Your task to perform on an android device: change timer sound Image 0: 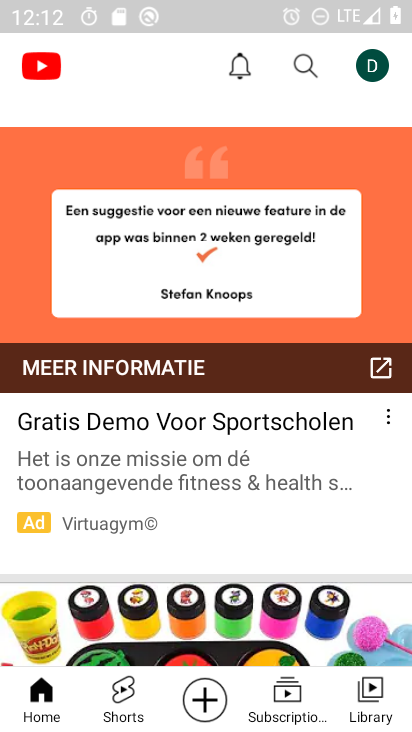
Step 0: press home button
Your task to perform on an android device: change timer sound Image 1: 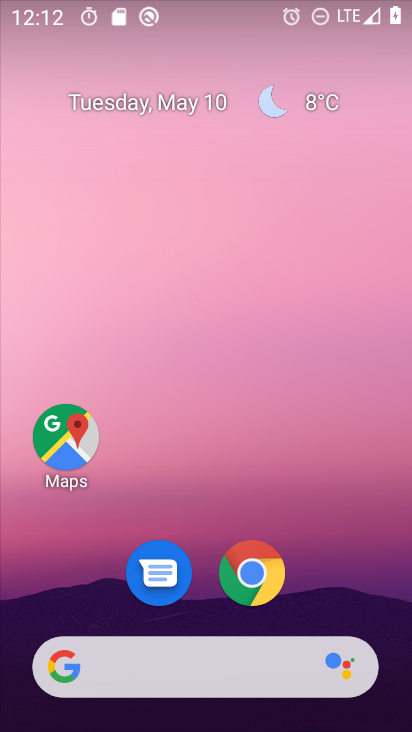
Step 1: drag from (337, 582) to (281, 151)
Your task to perform on an android device: change timer sound Image 2: 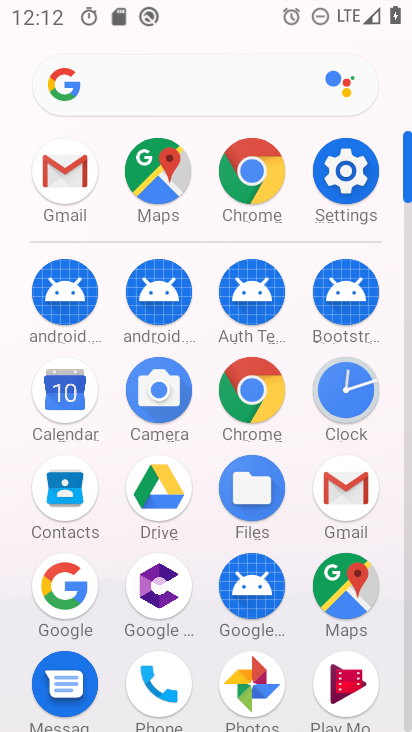
Step 2: click (357, 171)
Your task to perform on an android device: change timer sound Image 3: 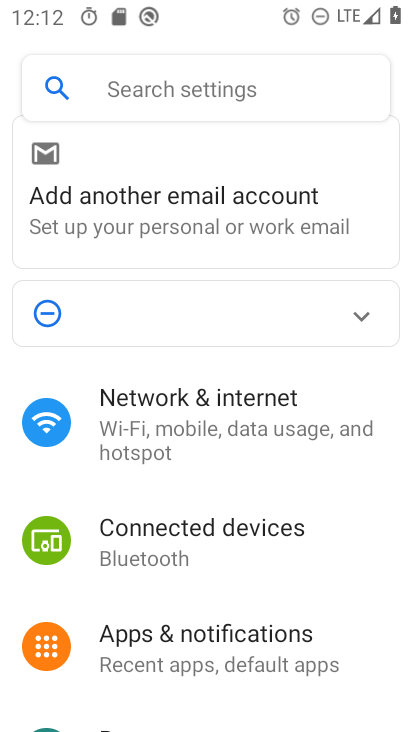
Step 3: press home button
Your task to perform on an android device: change timer sound Image 4: 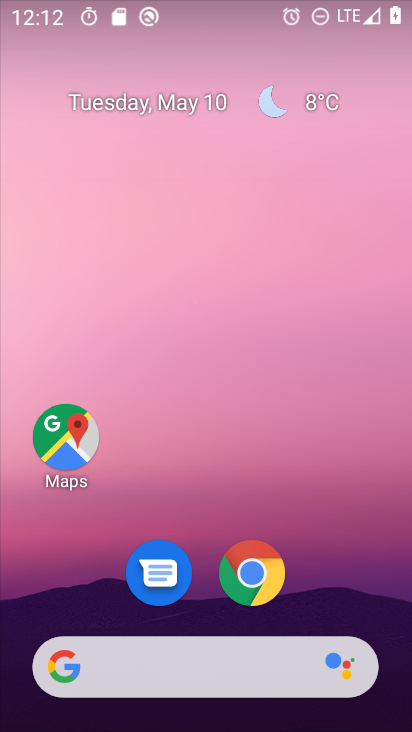
Step 4: drag from (319, 526) to (289, 130)
Your task to perform on an android device: change timer sound Image 5: 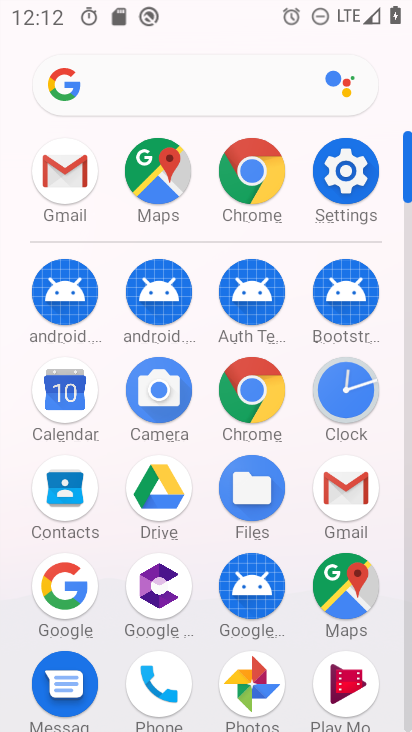
Step 5: click (332, 384)
Your task to perform on an android device: change timer sound Image 6: 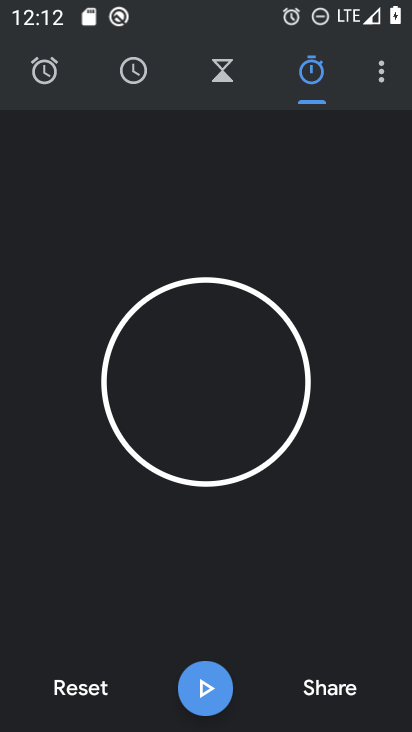
Step 6: drag from (383, 70) to (338, 184)
Your task to perform on an android device: change timer sound Image 7: 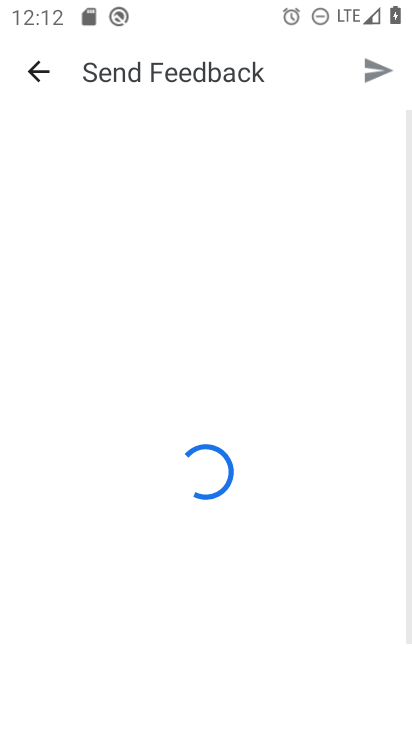
Step 7: click (39, 72)
Your task to perform on an android device: change timer sound Image 8: 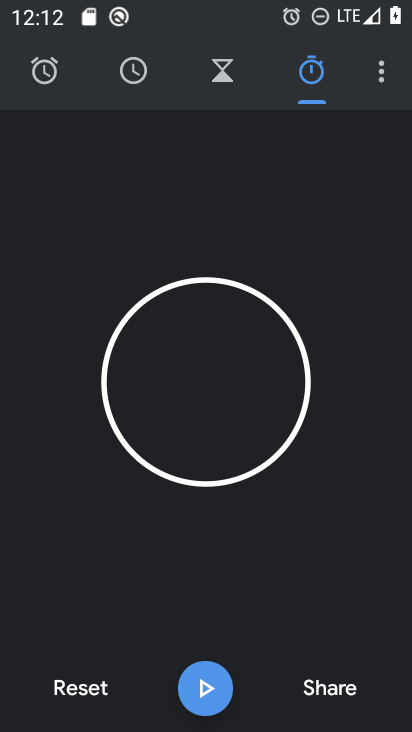
Step 8: click (377, 57)
Your task to perform on an android device: change timer sound Image 9: 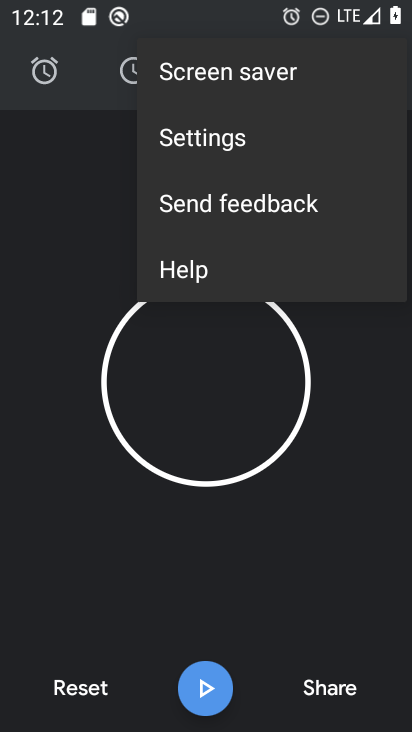
Step 9: click (224, 140)
Your task to perform on an android device: change timer sound Image 10: 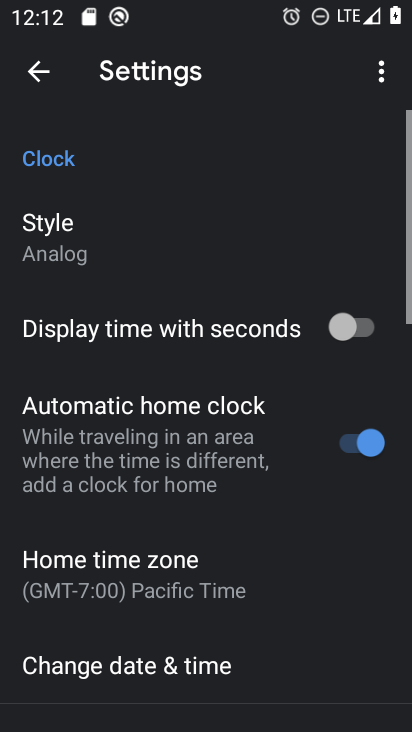
Step 10: drag from (282, 552) to (326, 33)
Your task to perform on an android device: change timer sound Image 11: 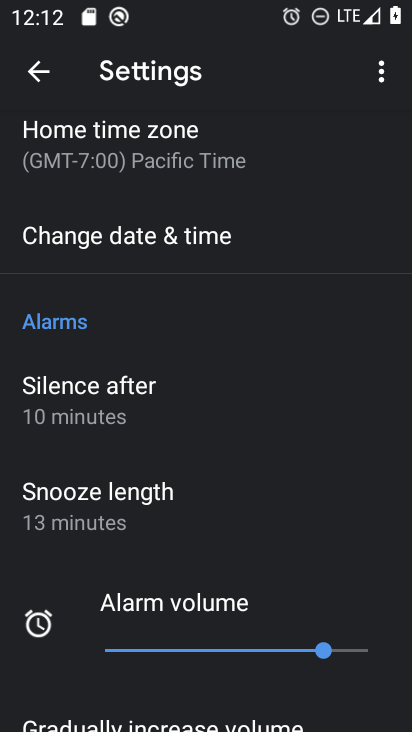
Step 11: drag from (211, 550) to (351, 146)
Your task to perform on an android device: change timer sound Image 12: 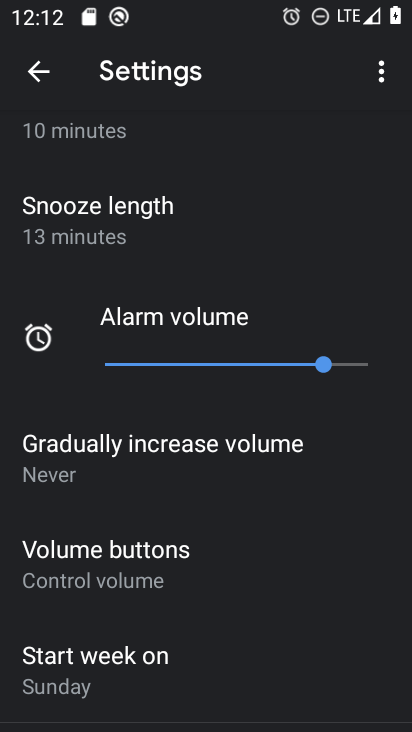
Step 12: drag from (187, 616) to (332, 194)
Your task to perform on an android device: change timer sound Image 13: 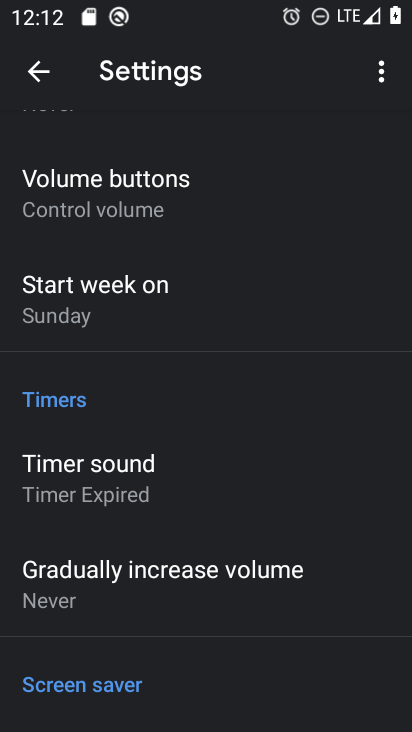
Step 13: click (130, 493)
Your task to perform on an android device: change timer sound Image 14: 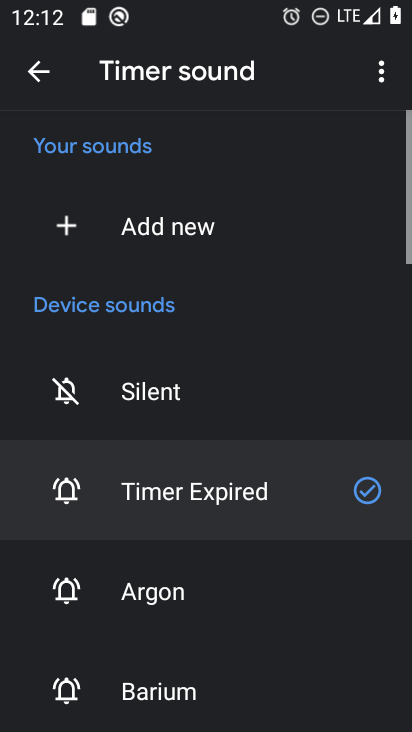
Step 14: click (182, 572)
Your task to perform on an android device: change timer sound Image 15: 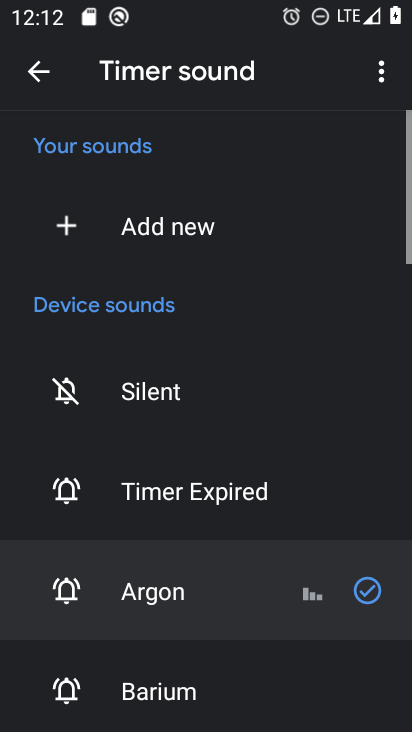
Step 15: task complete